Your task to perform on an android device: toggle data saver in the chrome app Image 0: 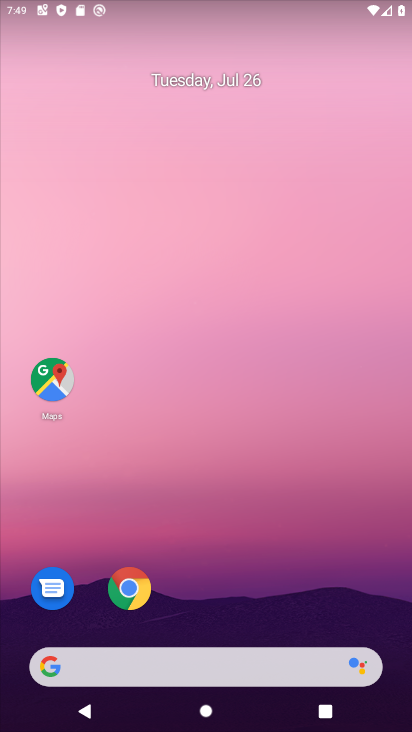
Step 0: click (127, 591)
Your task to perform on an android device: toggle data saver in the chrome app Image 1: 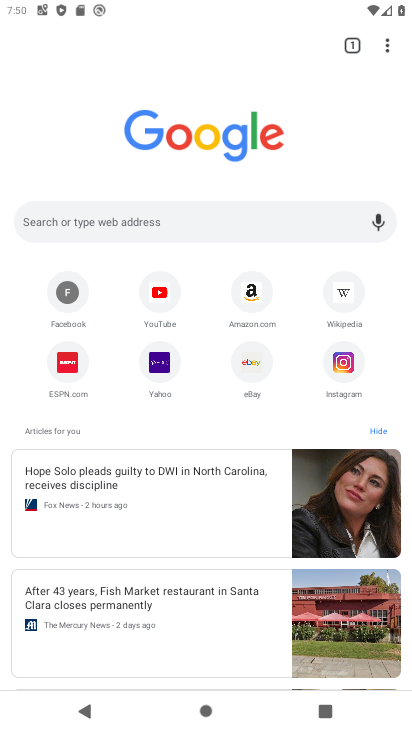
Step 1: task complete